Your task to perform on an android device: Is it going to rain today? Image 0: 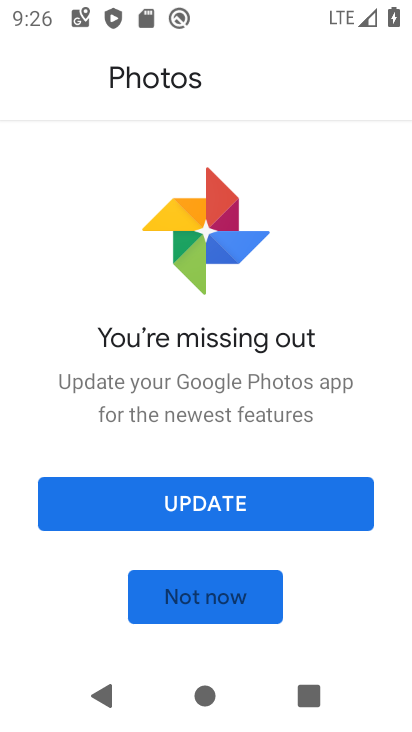
Step 0: press home button
Your task to perform on an android device: Is it going to rain today? Image 1: 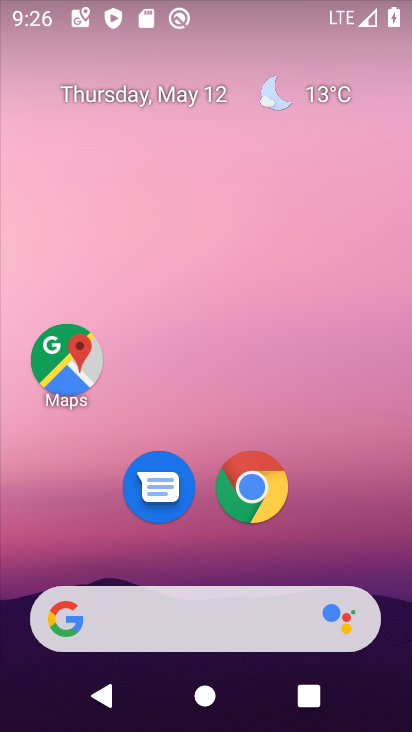
Step 1: click (325, 94)
Your task to perform on an android device: Is it going to rain today? Image 2: 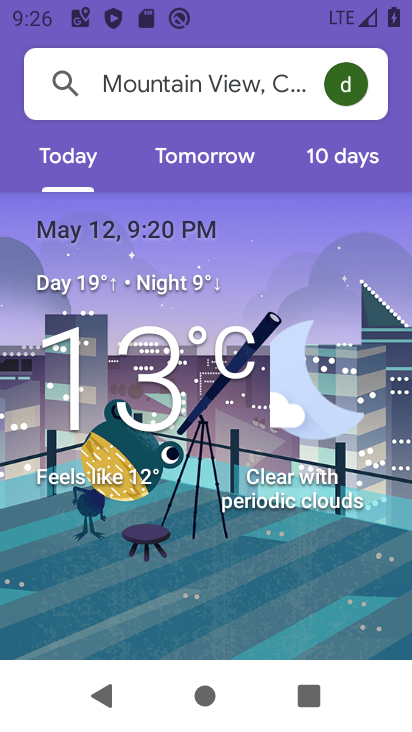
Step 2: task complete